Your task to perform on an android device: see tabs open on other devices in the chrome app Image 0: 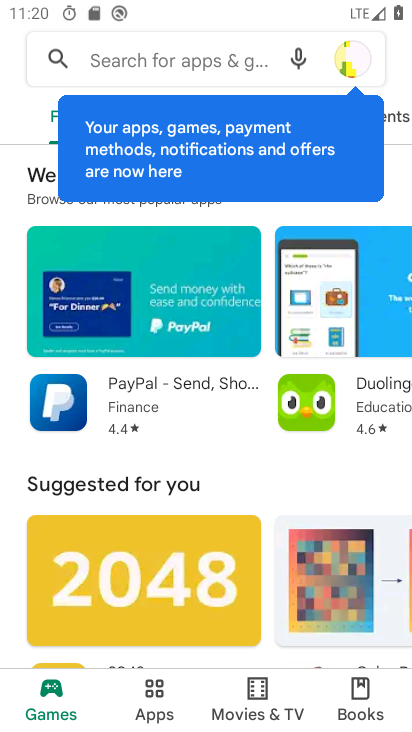
Step 0: press home button
Your task to perform on an android device: see tabs open on other devices in the chrome app Image 1: 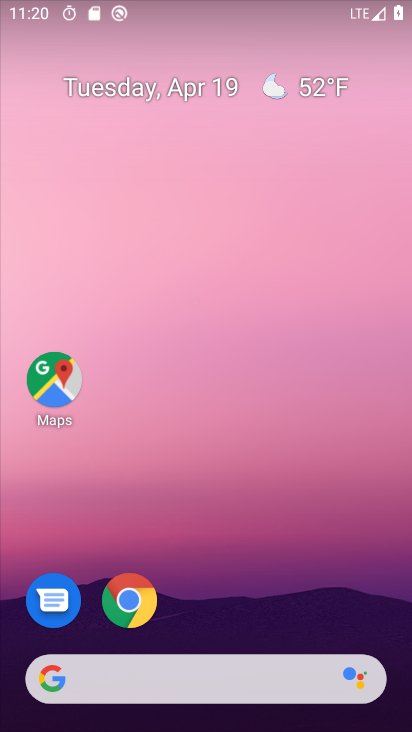
Step 1: click (141, 599)
Your task to perform on an android device: see tabs open on other devices in the chrome app Image 2: 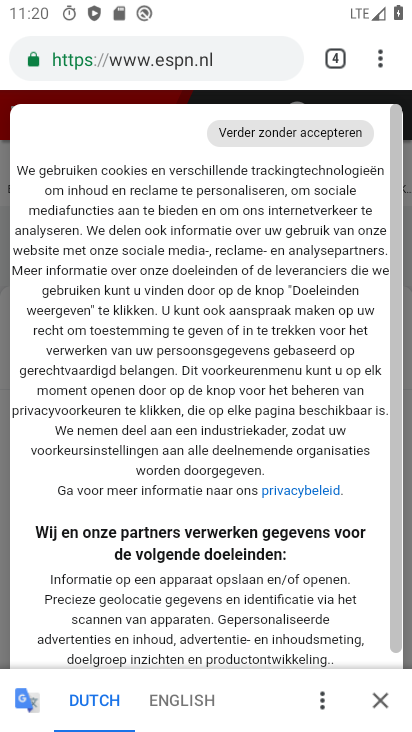
Step 2: click (335, 59)
Your task to perform on an android device: see tabs open on other devices in the chrome app Image 3: 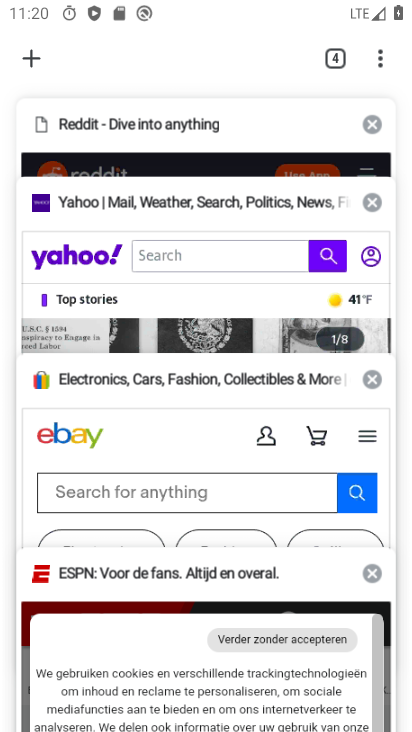
Step 3: click (34, 58)
Your task to perform on an android device: see tabs open on other devices in the chrome app Image 4: 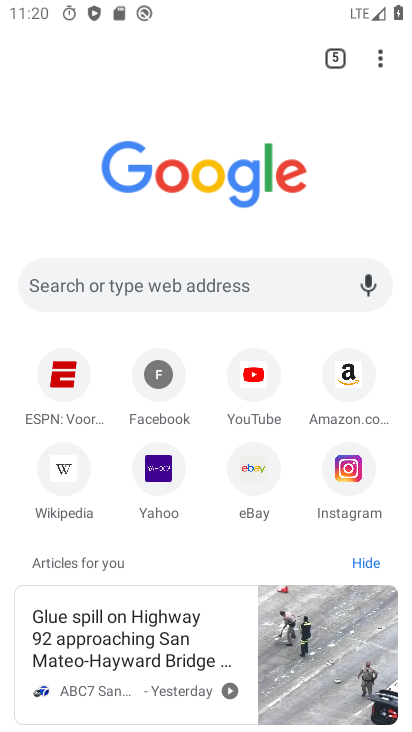
Step 4: click (329, 65)
Your task to perform on an android device: see tabs open on other devices in the chrome app Image 5: 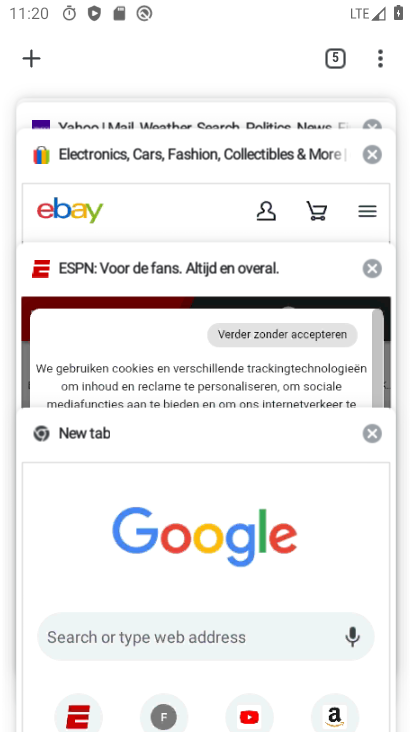
Step 5: task complete